Your task to perform on an android device: install app "The Home Depot" Image 0: 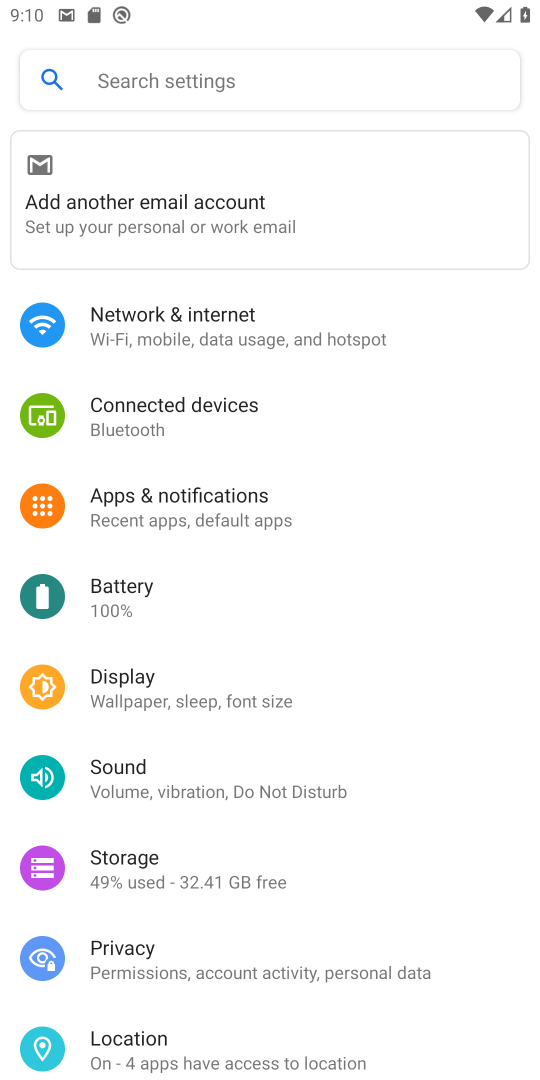
Step 0: press home button
Your task to perform on an android device: install app "The Home Depot" Image 1: 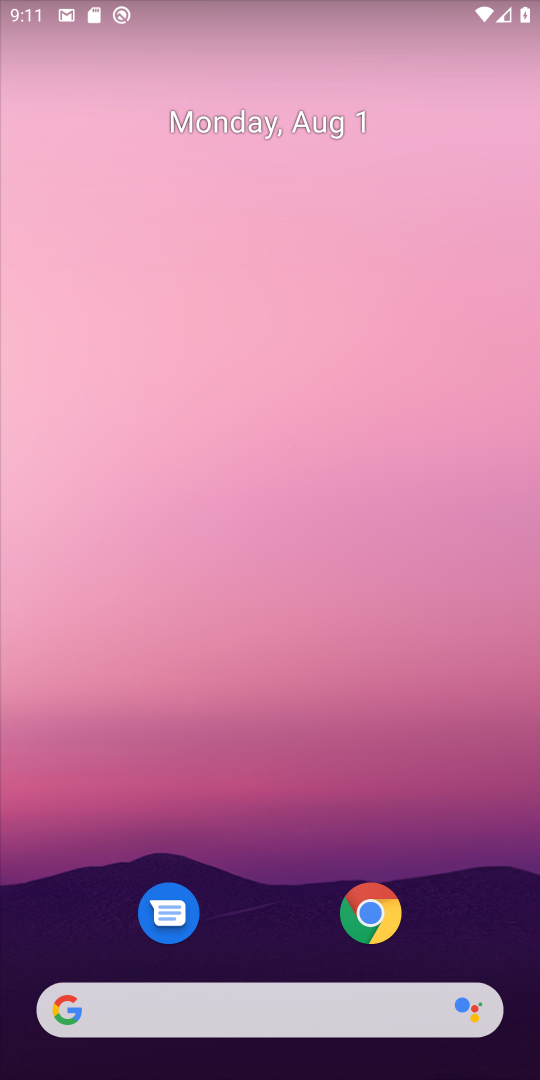
Step 1: drag from (246, 914) to (282, 254)
Your task to perform on an android device: install app "The Home Depot" Image 2: 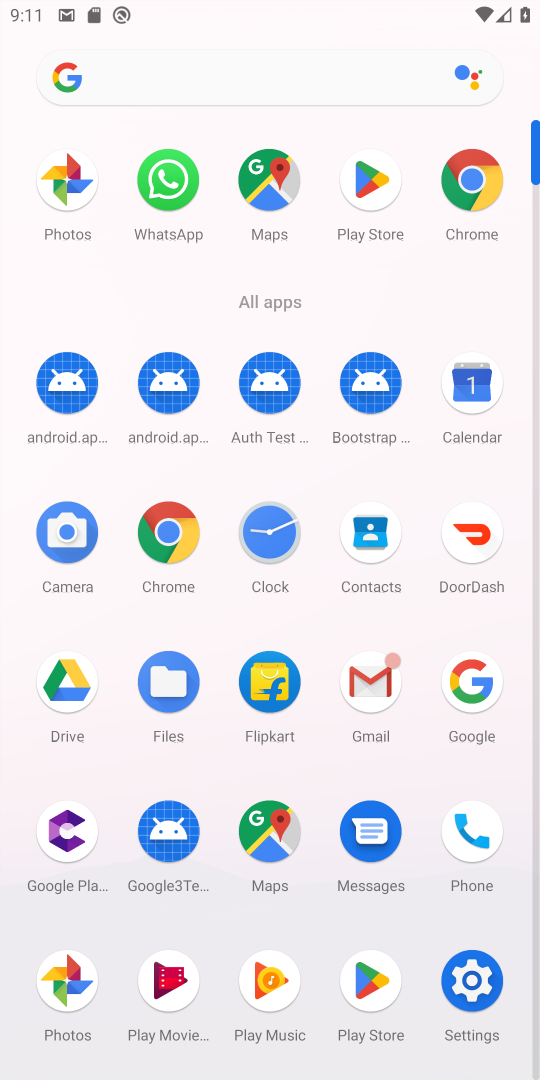
Step 2: click (377, 982)
Your task to perform on an android device: install app "The Home Depot" Image 3: 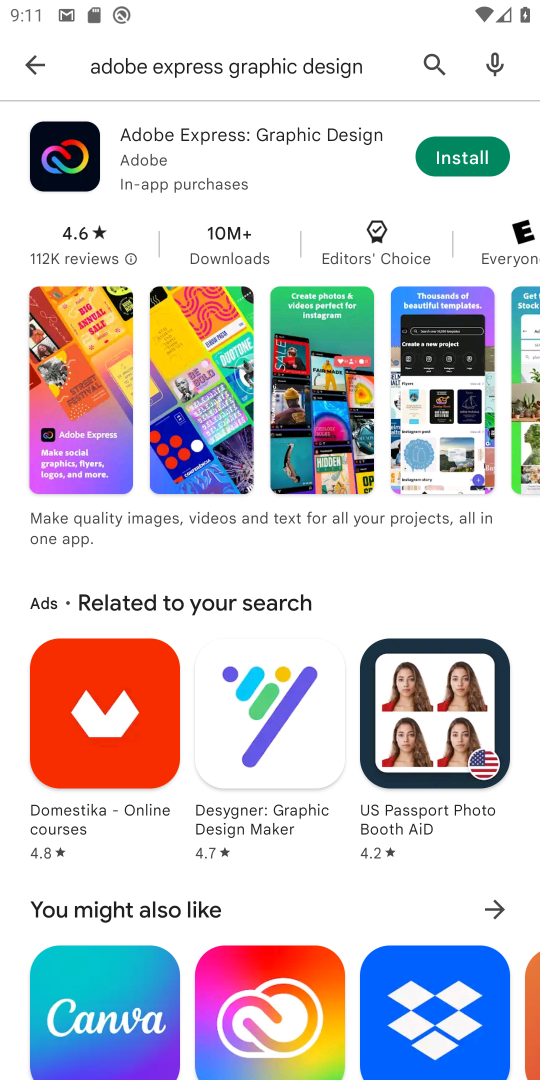
Step 3: click (443, 67)
Your task to perform on an android device: install app "The Home Depot" Image 4: 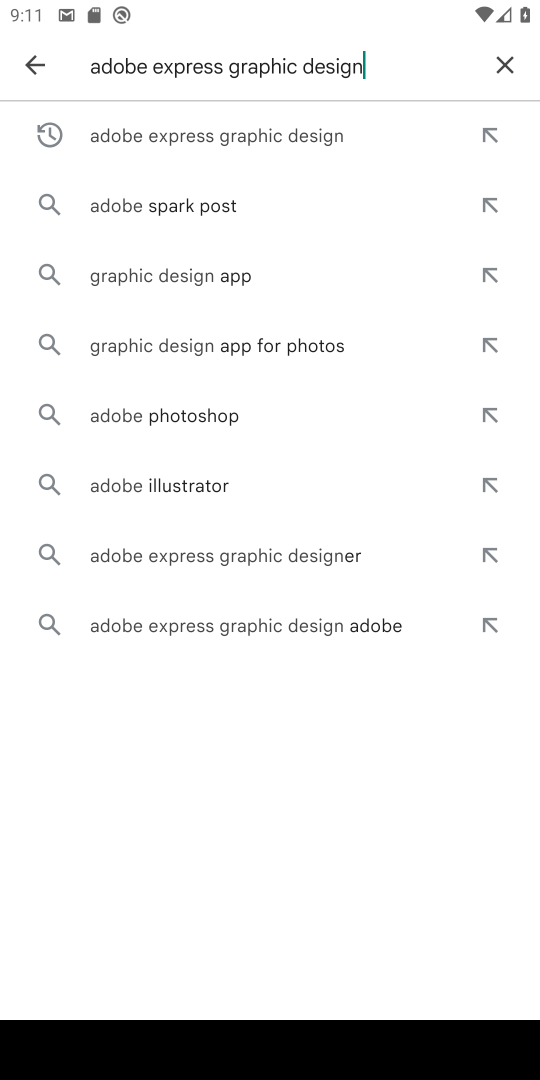
Step 4: click (513, 63)
Your task to perform on an android device: install app "The Home Depot" Image 5: 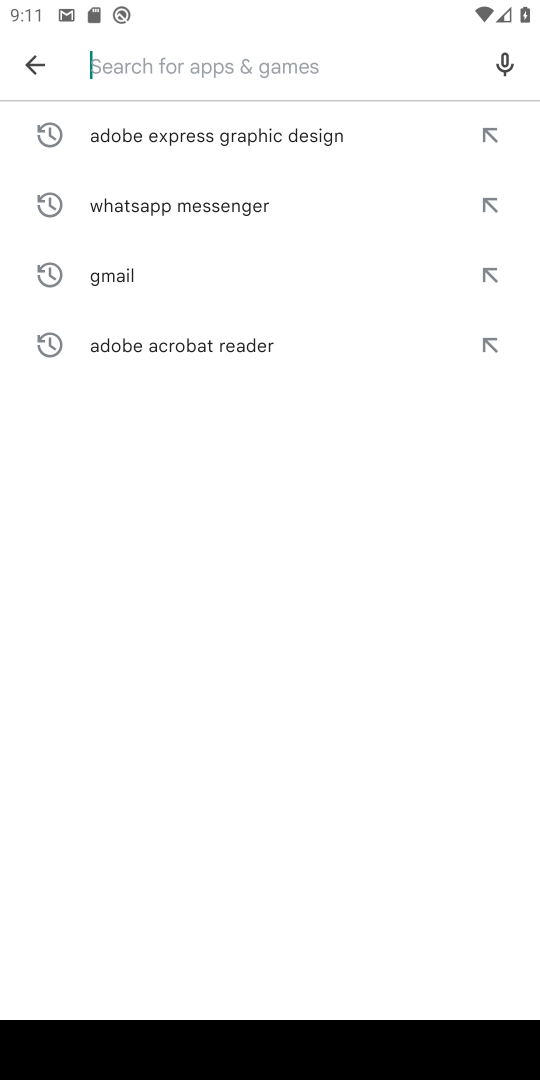
Step 5: type "The Home Depot"
Your task to perform on an android device: install app "The Home Depot" Image 6: 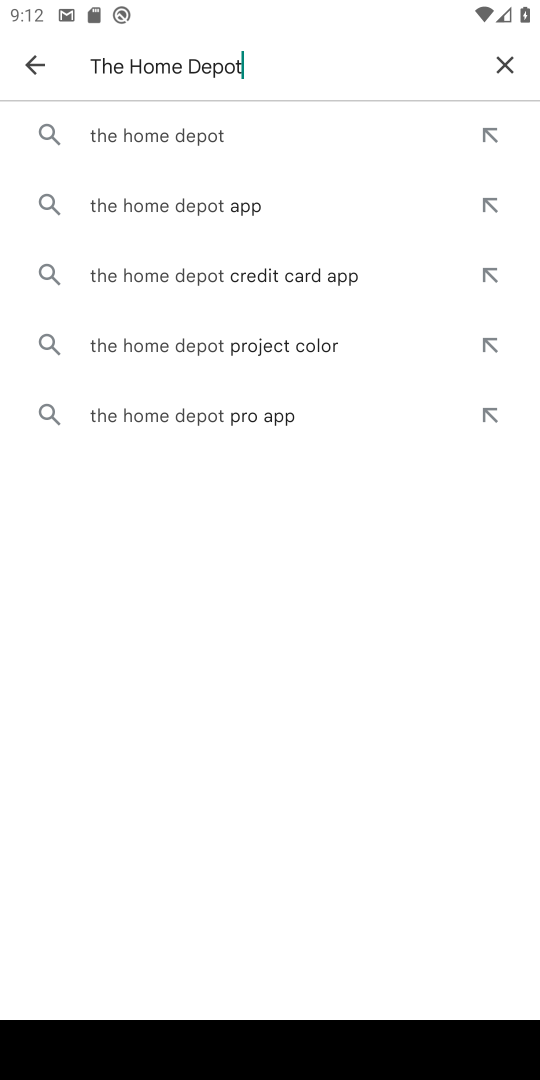
Step 6: click (161, 135)
Your task to perform on an android device: install app "The Home Depot" Image 7: 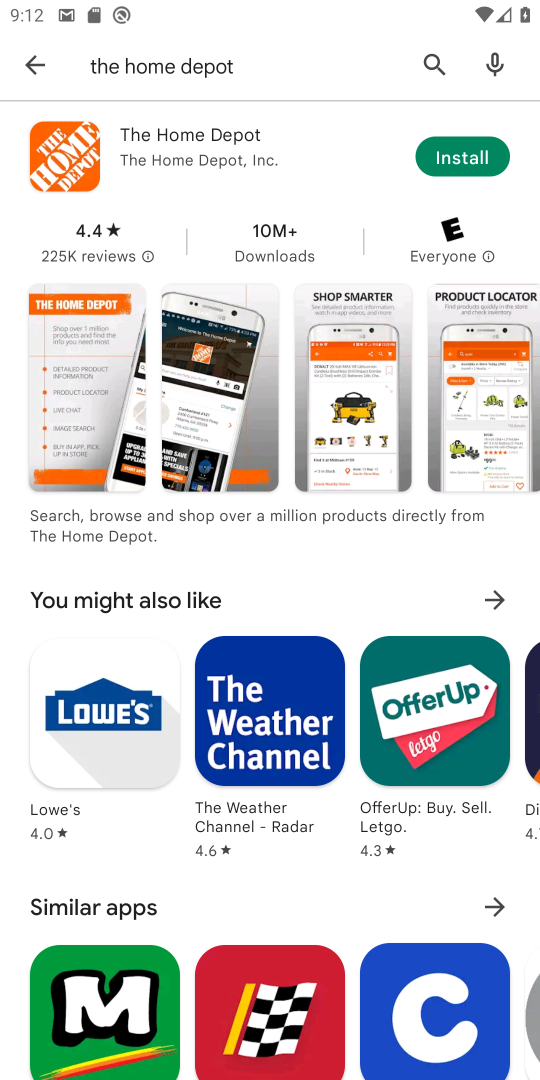
Step 7: click (445, 146)
Your task to perform on an android device: install app "The Home Depot" Image 8: 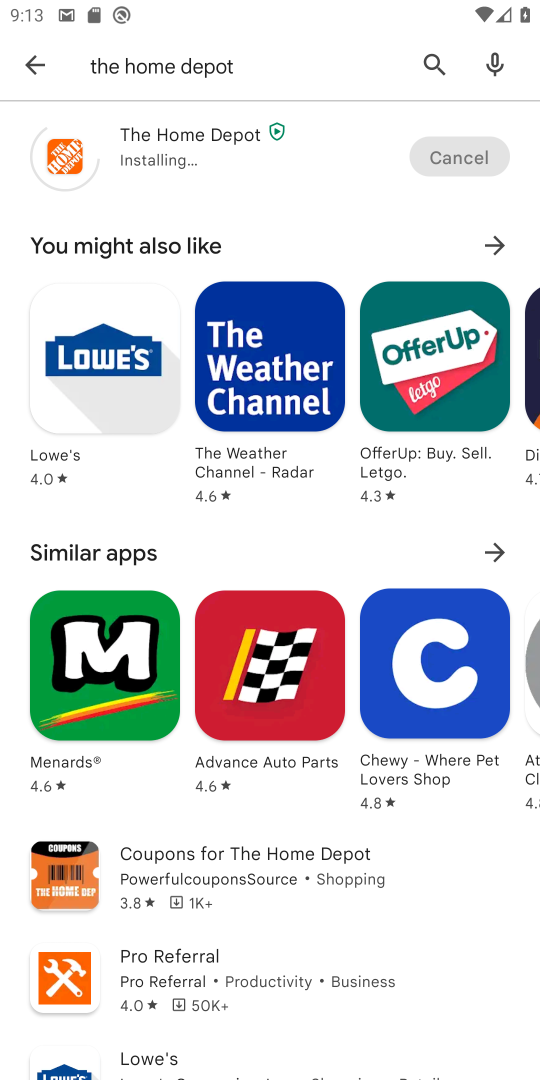
Step 8: task complete